Your task to perform on an android device: Check the news Image 0: 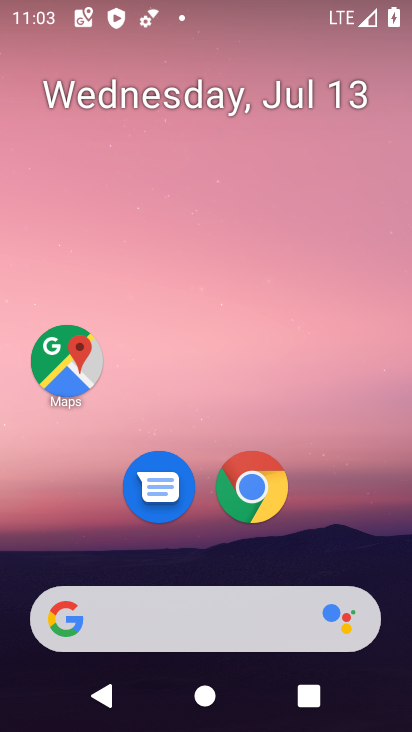
Step 0: click (205, 598)
Your task to perform on an android device: Check the news Image 1: 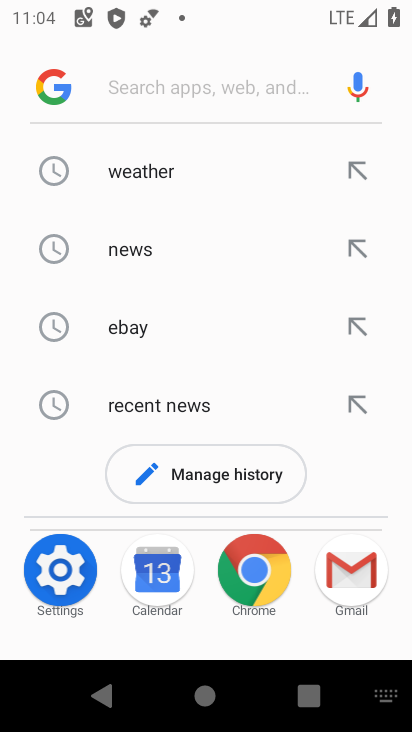
Step 1: click (146, 251)
Your task to perform on an android device: Check the news Image 2: 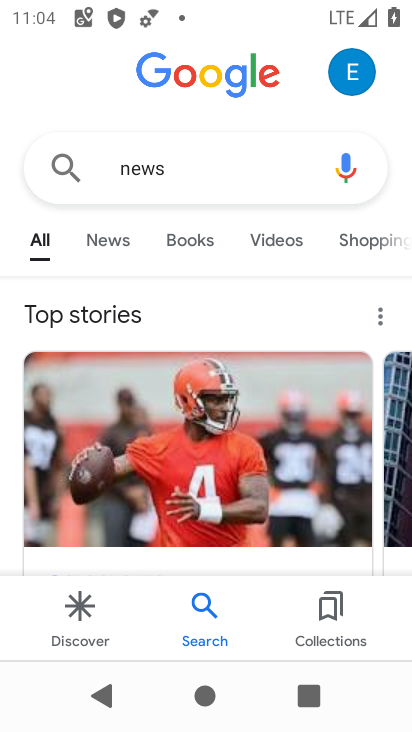
Step 2: task complete